Your task to perform on an android device: Open internet settings Image 0: 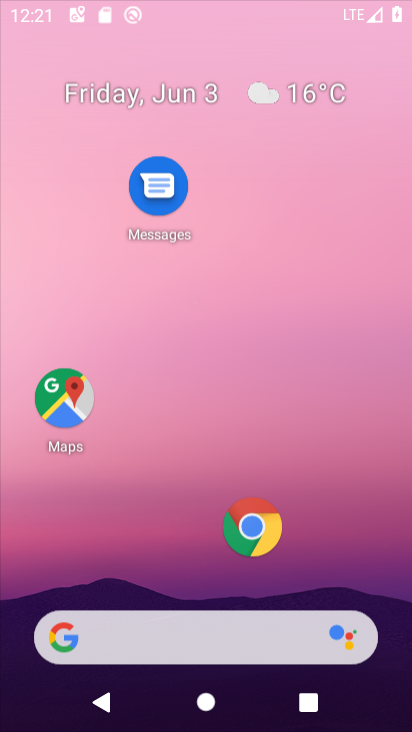
Step 0: press home button
Your task to perform on an android device: Open internet settings Image 1: 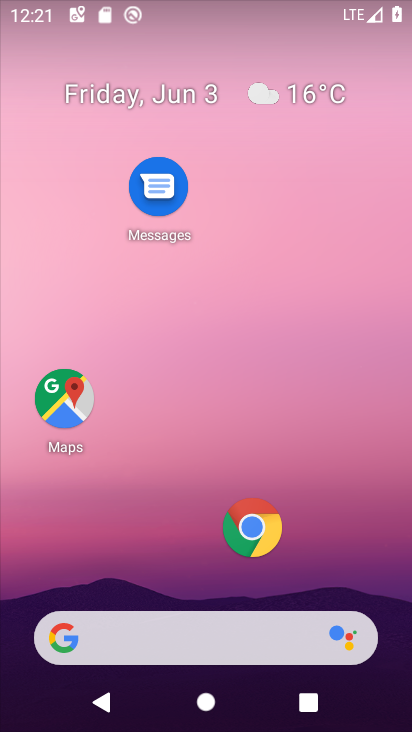
Step 1: drag from (204, 574) to (226, 1)
Your task to perform on an android device: Open internet settings Image 2: 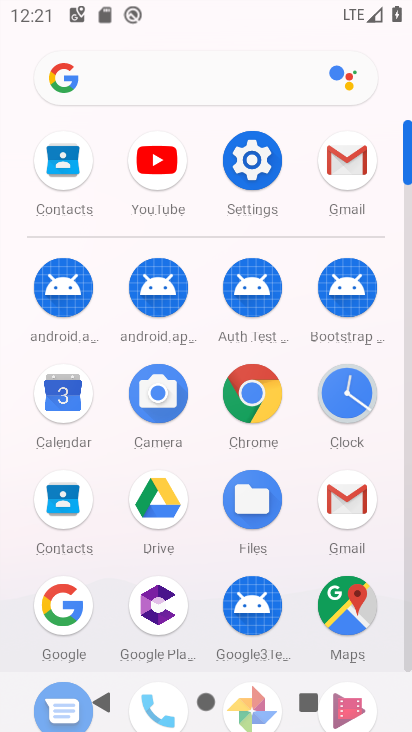
Step 2: click (250, 153)
Your task to perform on an android device: Open internet settings Image 3: 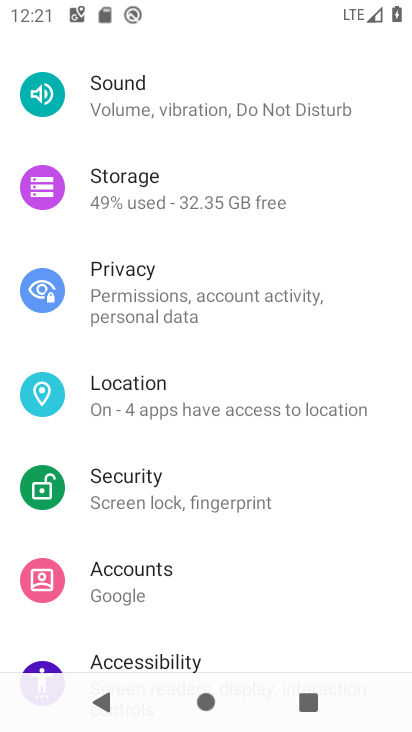
Step 3: drag from (195, 124) to (210, 588)
Your task to perform on an android device: Open internet settings Image 4: 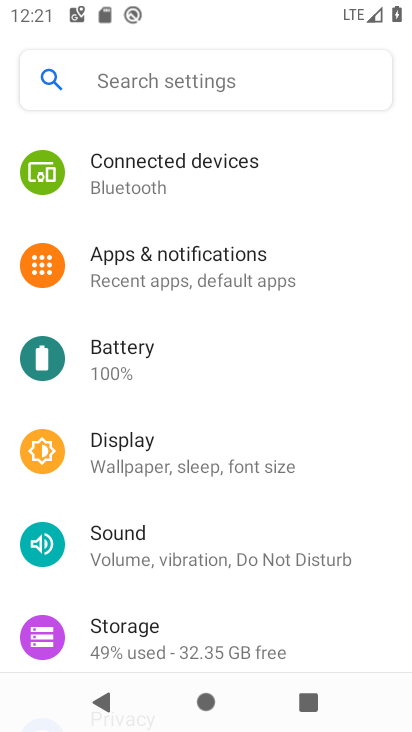
Step 4: drag from (202, 207) to (204, 726)
Your task to perform on an android device: Open internet settings Image 5: 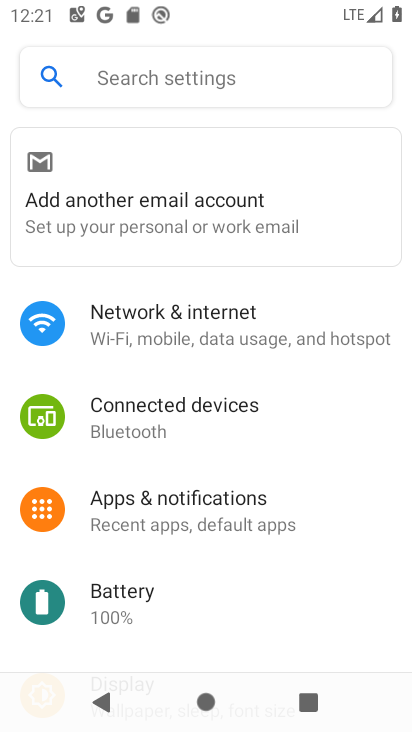
Step 5: click (214, 317)
Your task to perform on an android device: Open internet settings Image 6: 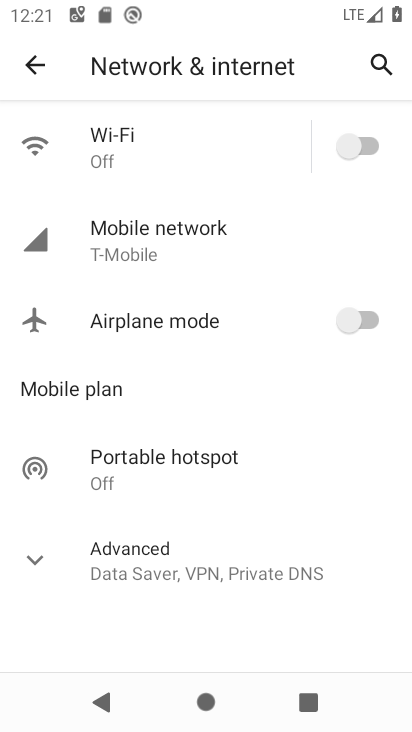
Step 6: click (37, 557)
Your task to perform on an android device: Open internet settings Image 7: 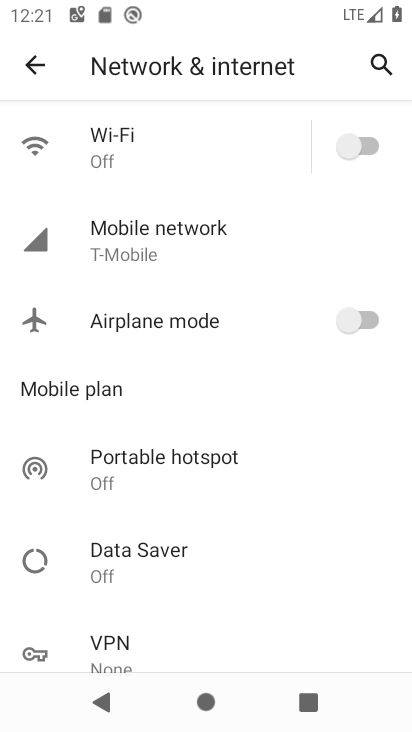
Step 7: task complete